Your task to perform on an android device: turn off notifications in google photos Image 0: 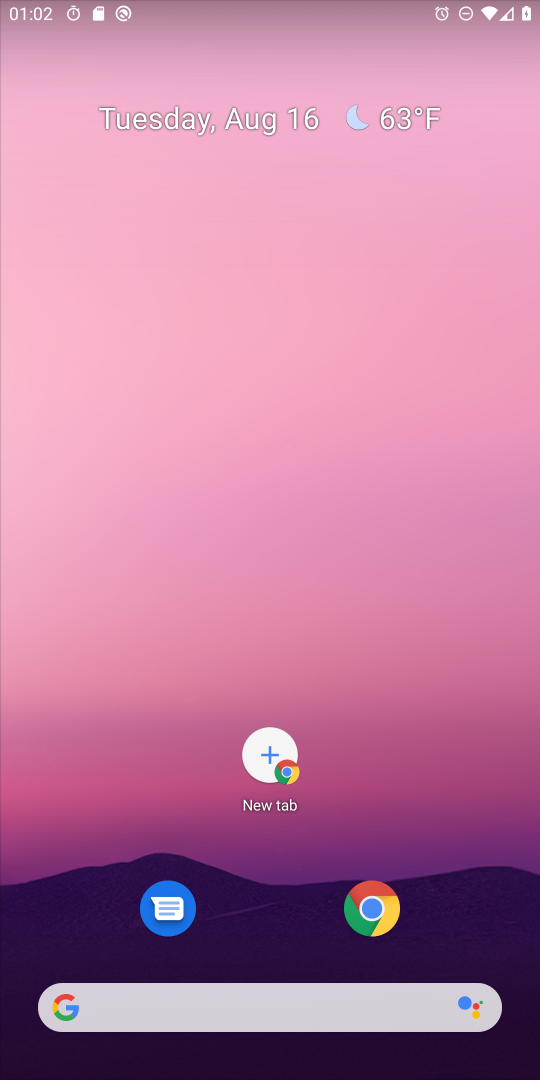
Step 0: drag from (252, 952) to (97, 63)
Your task to perform on an android device: turn off notifications in google photos Image 1: 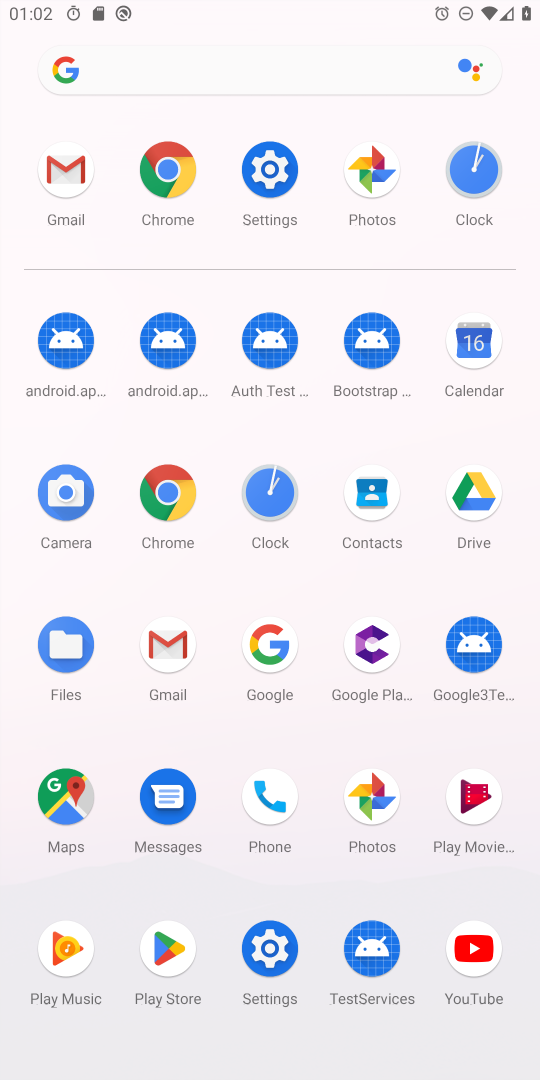
Step 1: click (350, 186)
Your task to perform on an android device: turn off notifications in google photos Image 2: 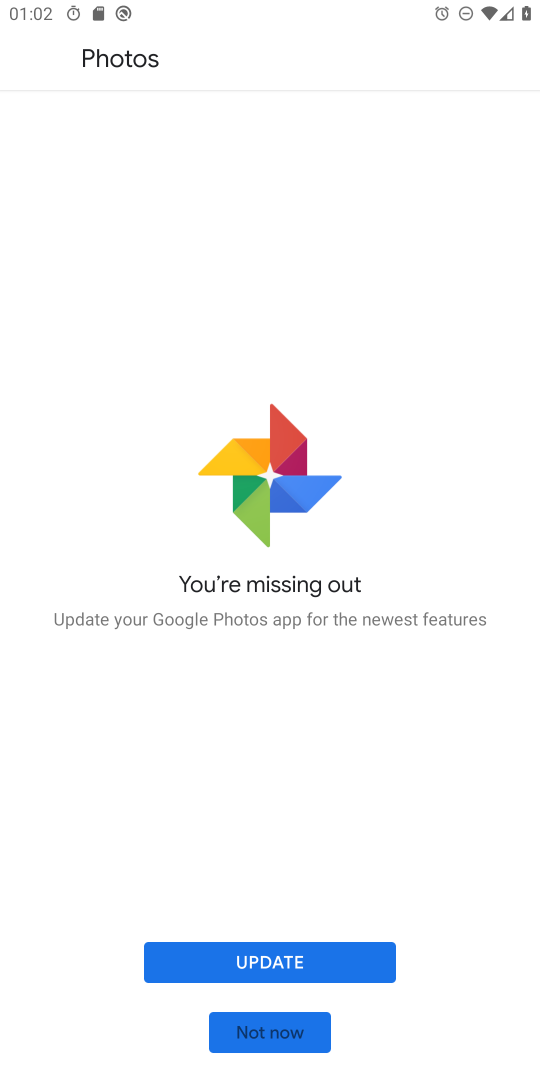
Step 2: click (319, 1036)
Your task to perform on an android device: turn off notifications in google photos Image 3: 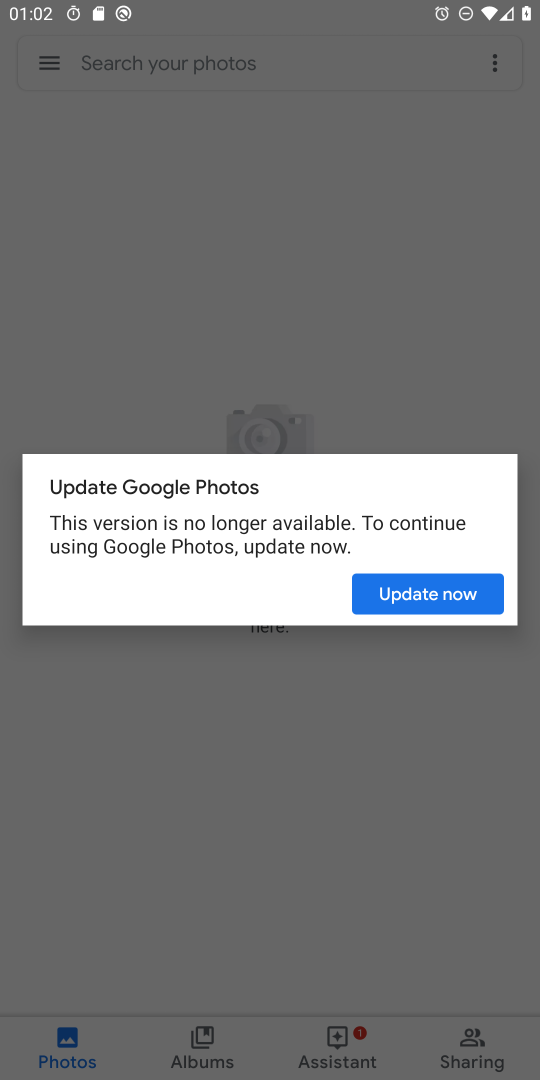
Step 3: click (479, 597)
Your task to perform on an android device: turn off notifications in google photos Image 4: 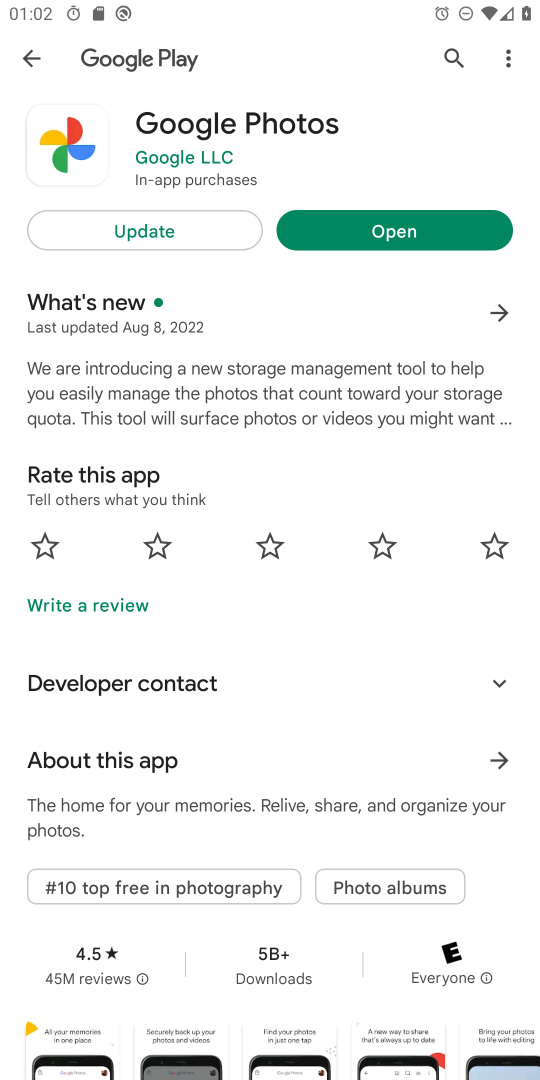
Step 4: click (289, 239)
Your task to perform on an android device: turn off notifications in google photos Image 5: 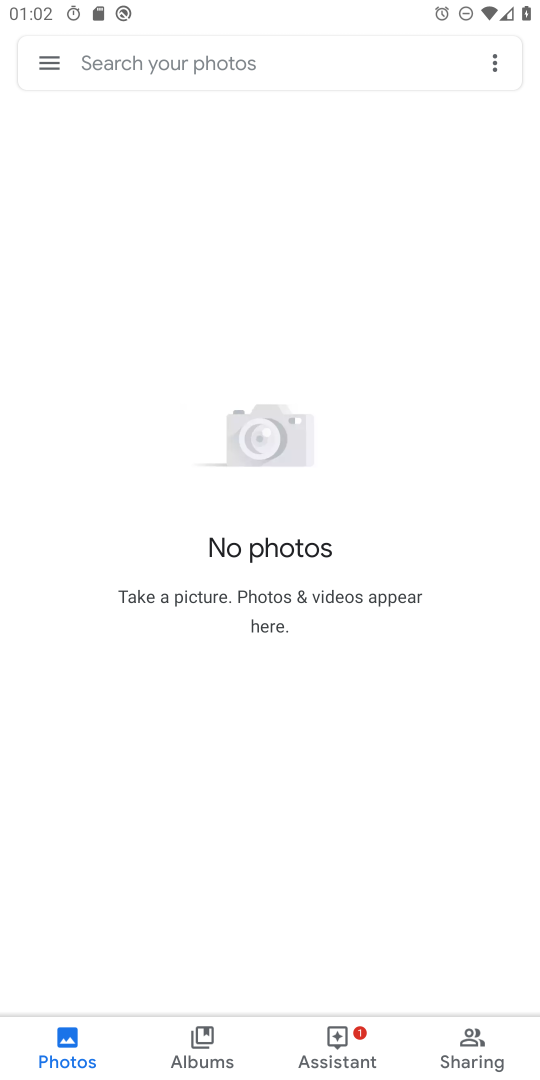
Step 5: click (50, 60)
Your task to perform on an android device: turn off notifications in google photos Image 6: 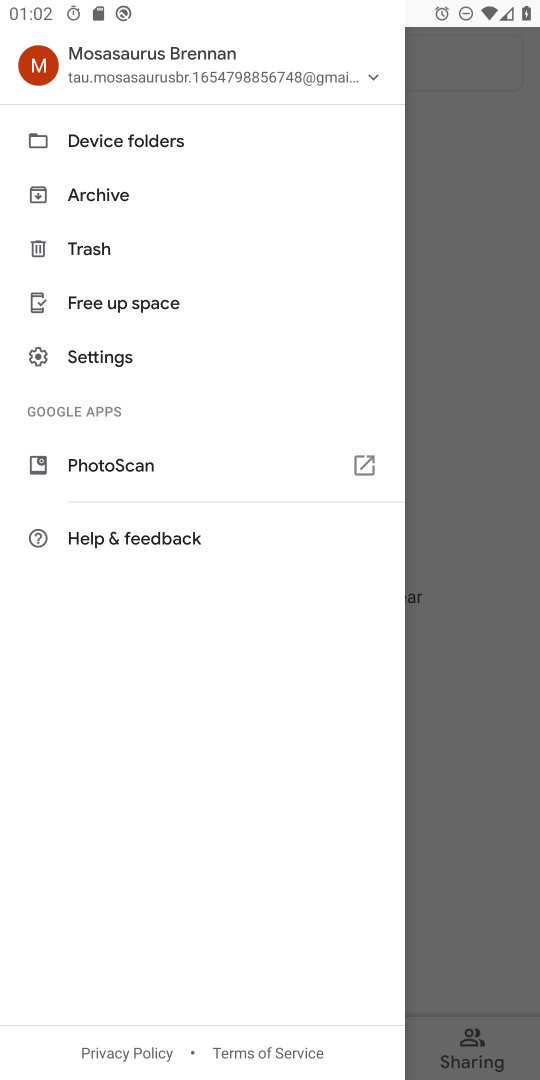
Step 6: click (149, 368)
Your task to perform on an android device: turn off notifications in google photos Image 7: 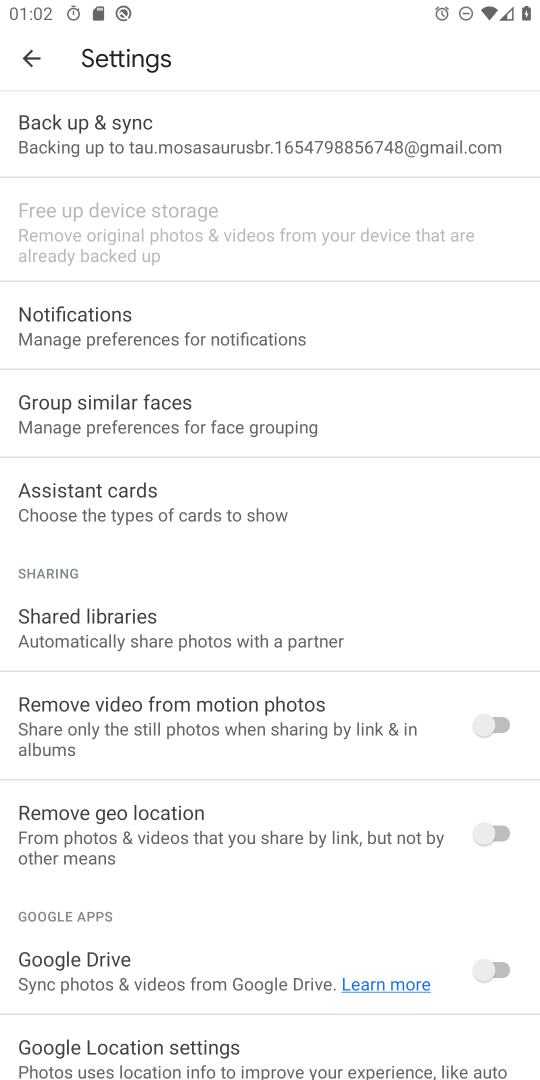
Step 7: click (199, 337)
Your task to perform on an android device: turn off notifications in google photos Image 8: 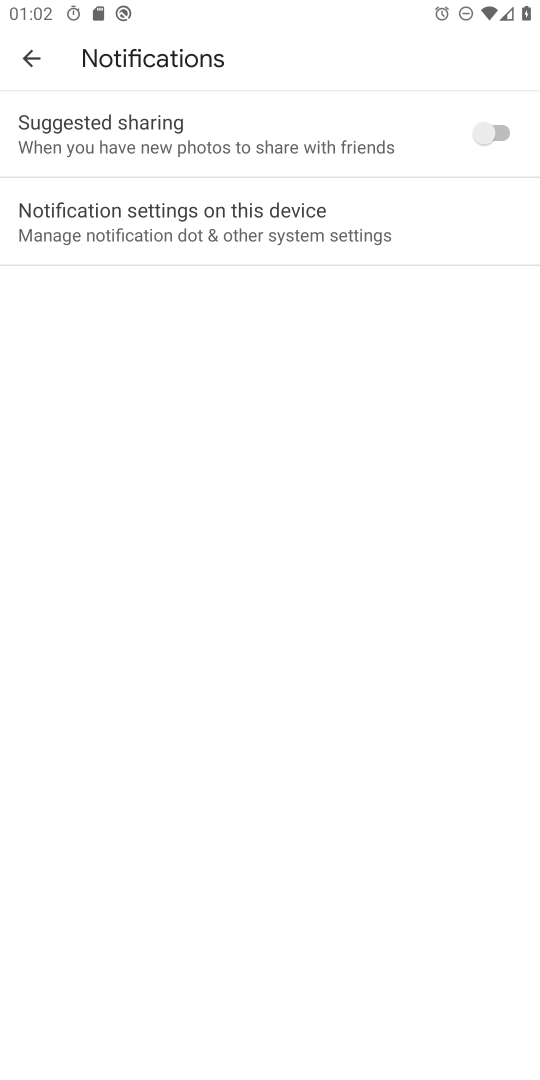
Step 8: click (350, 206)
Your task to perform on an android device: turn off notifications in google photos Image 9: 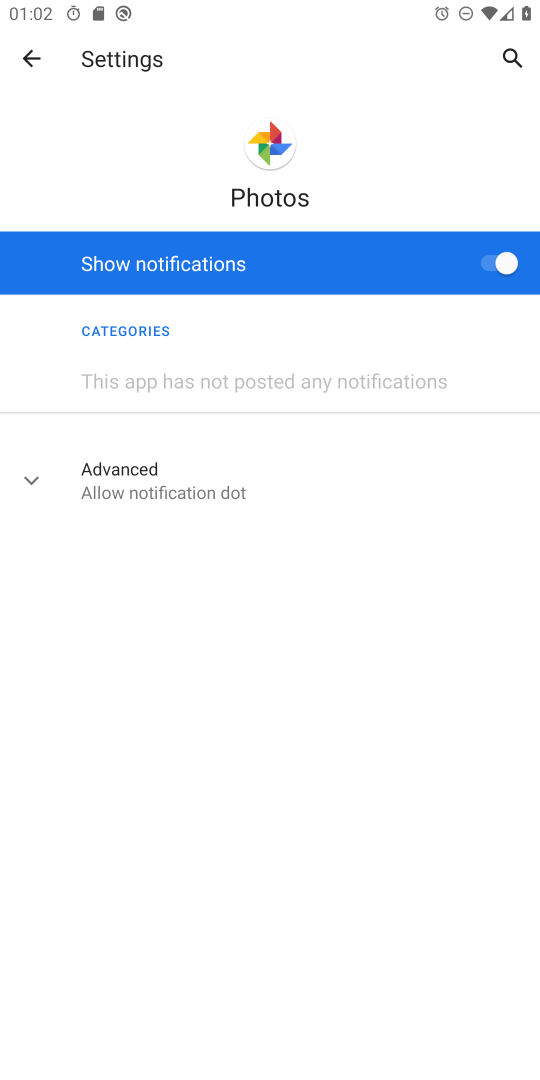
Step 9: click (505, 266)
Your task to perform on an android device: turn off notifications in google photos Image 10: 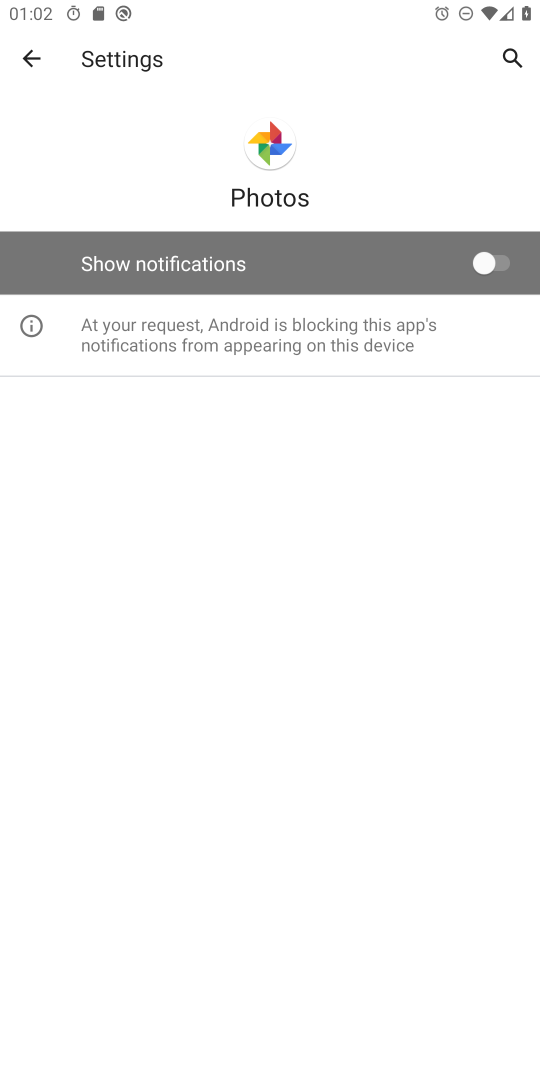
Step 10: task complete